Your task to perform on an android device: Do I have any events today? Image 0: 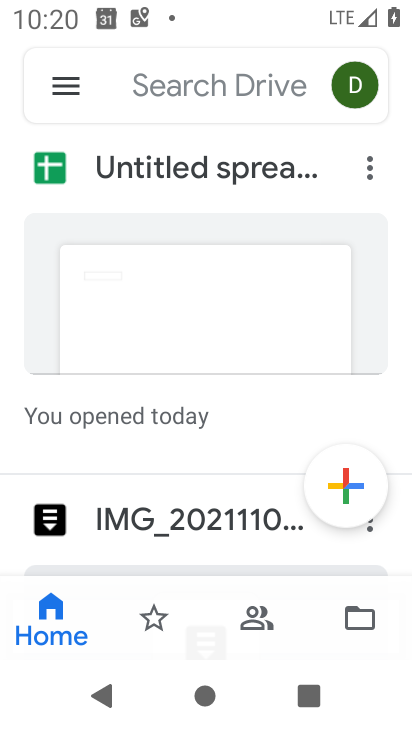
Step 0: press back button
Your task to perform on an android device: Do I have any events today? Image 1: 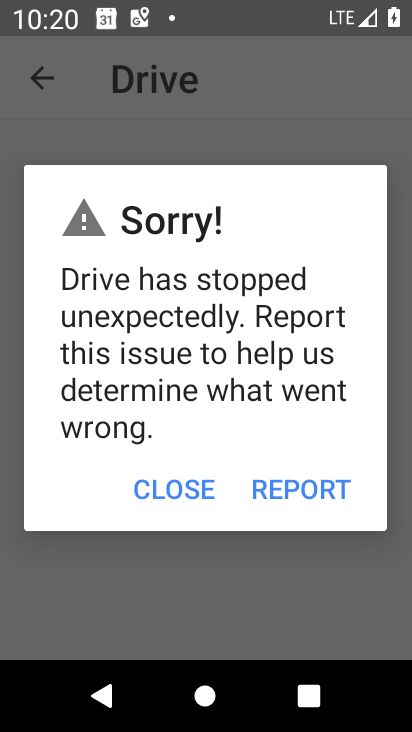
Step 1: click (170, 490)
Your task to perform on an android device: Do I have any events today? Image 2: 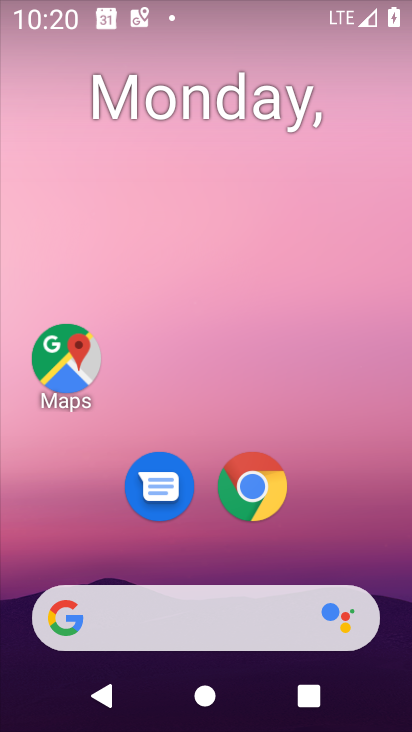
Step 2: drag from (405, 674) to (265, 3)
Your task to perform on an android device: Do I have any events today? Image 3: 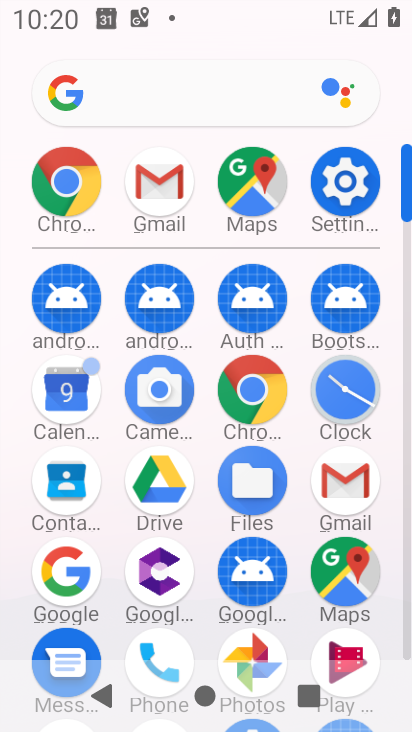
Step 3: drag from (14, 577) to (11, 221)
Your task to perform on an android device: Do I have any events today? Image 4: 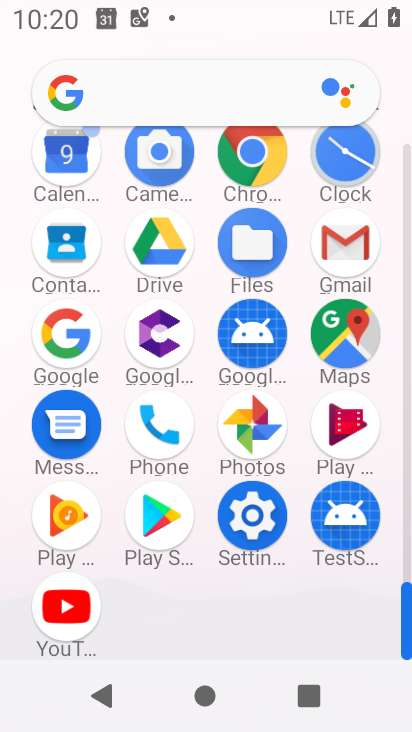
Step 4: drag from (18, 516) to (16, 225)
Your task to perform on an android device: Do I have any events today? Image 5: 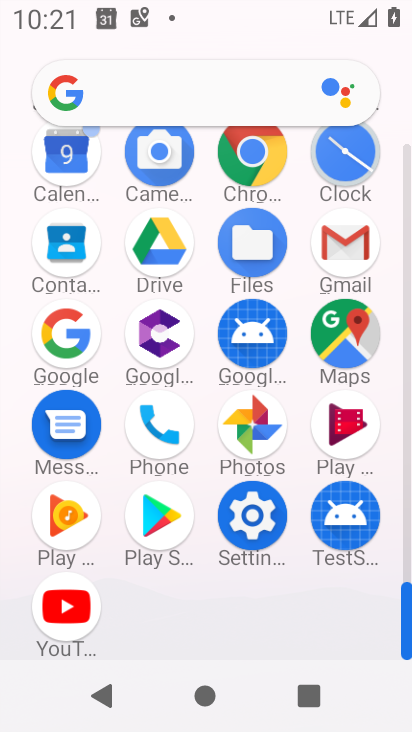
Step 5: drag from (17, 215) to (8, 548)
Your task to perform on an android device: Do I have any events today? Image 6: 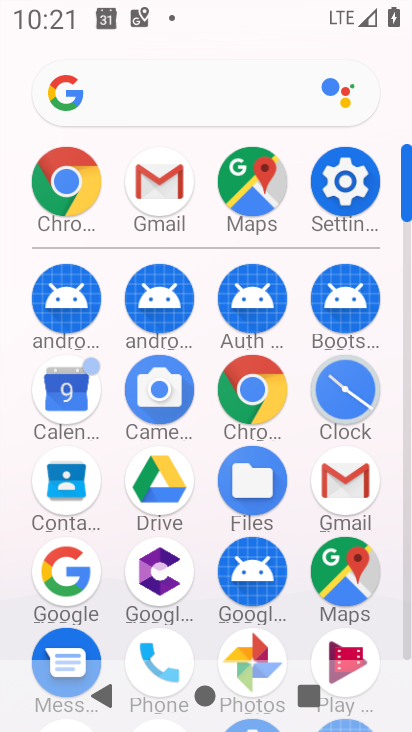
Step 6: drag from (17, 396) to (28, 123)
Your task to perform on an android device: Do I have any events today? Image 7: 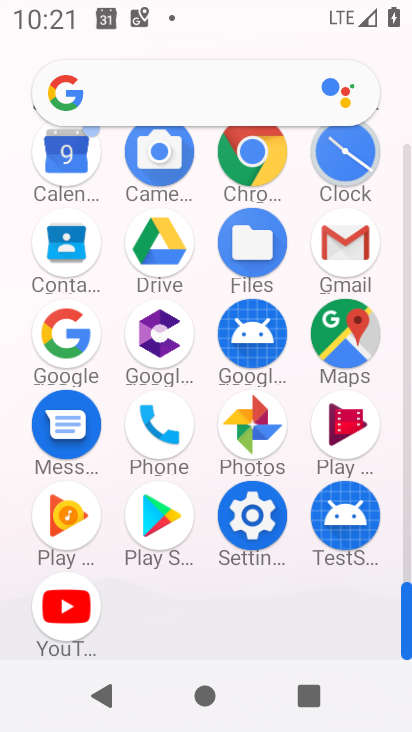
Step 7: drag from (4, 385) to (26, 154)
Your task to perform on an android device: Do I have any events today? Image 8: 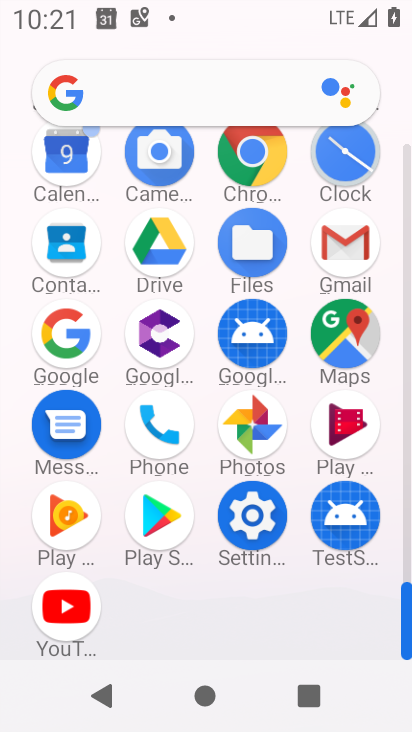
Step 8: click (70, 150)
Your task to perform on an android device: Do I have any events today? Image 9: 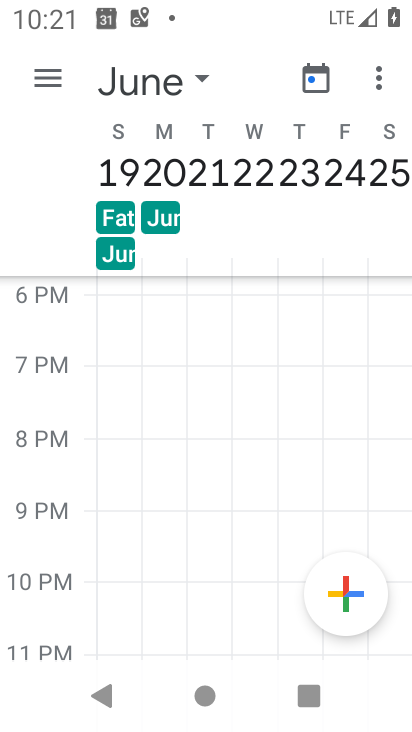
Step 9: drag from (225, 467) to (273, 106)
Your task to perform on an android device: Do I have any events today? Image 10: 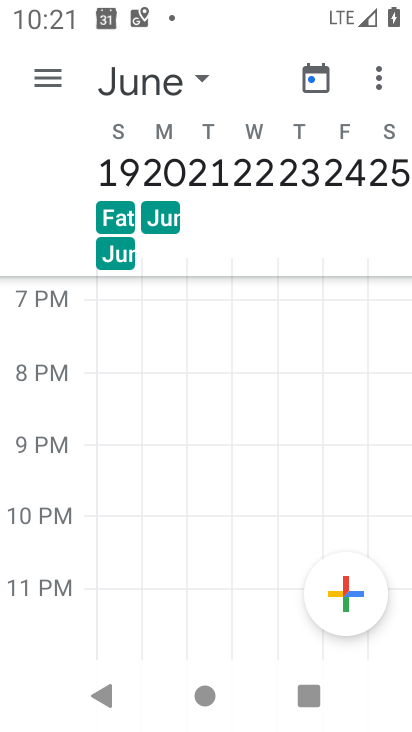
Step 10: drag from (209, 404) to (215, 587)
Your task to perform on an android device: Do I have any events today? Image 11: 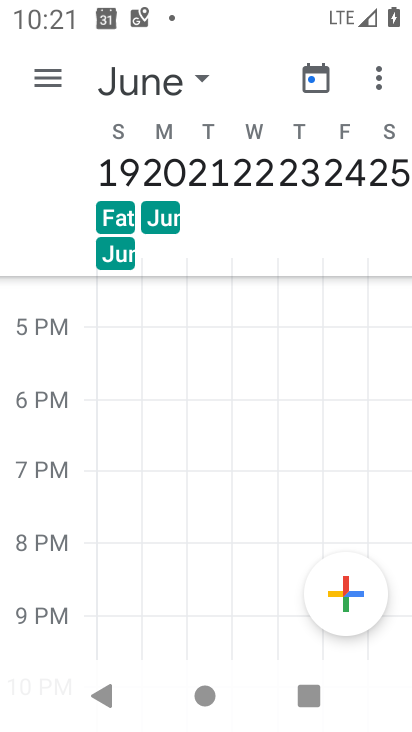
Step 11: click (321, 71)
Your task to perform on an android device: Do I have any events today? Image 12: 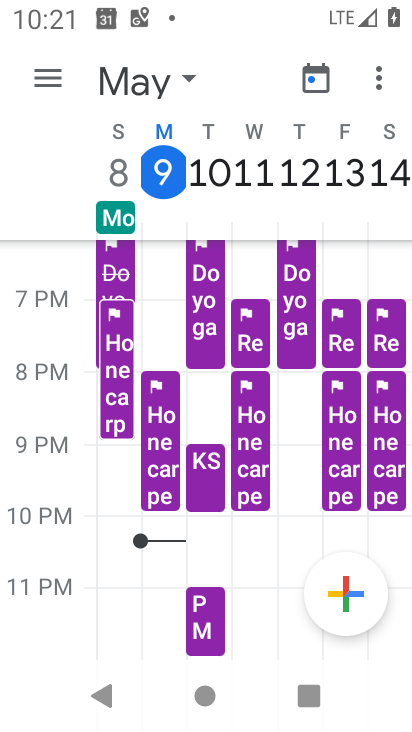
Step 12: task complete